Your task to perform on an android device: toggle airplane mode Image 0: 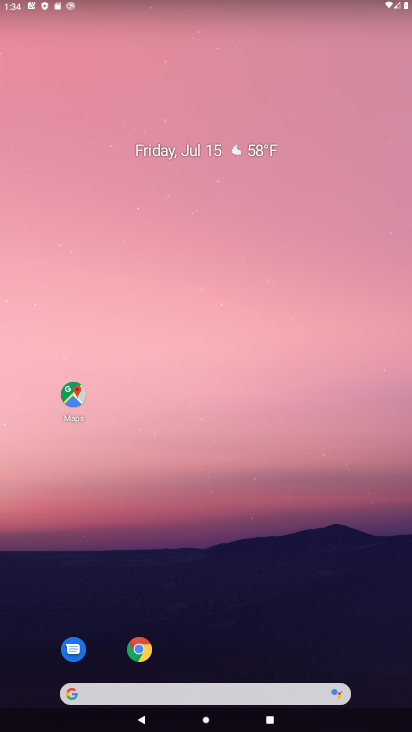
Step 0: drag from (252, 670) to (334, 0)
Your task to perform on an android device: toggle airplane mode Image 1: 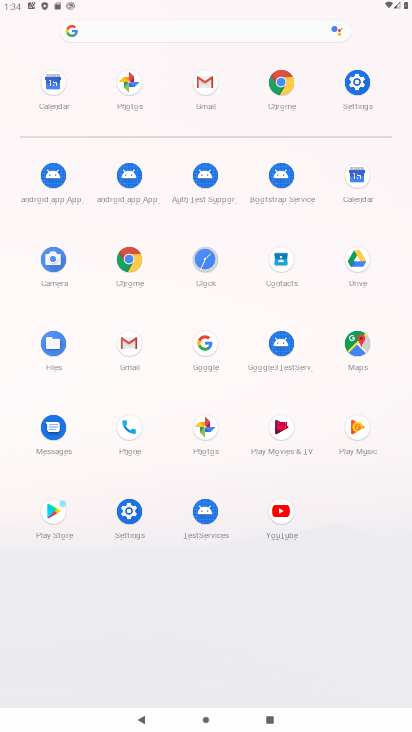
Step 1: click (370, 81)
Your task to perform on an android device: toggle airplane mode Image 2: 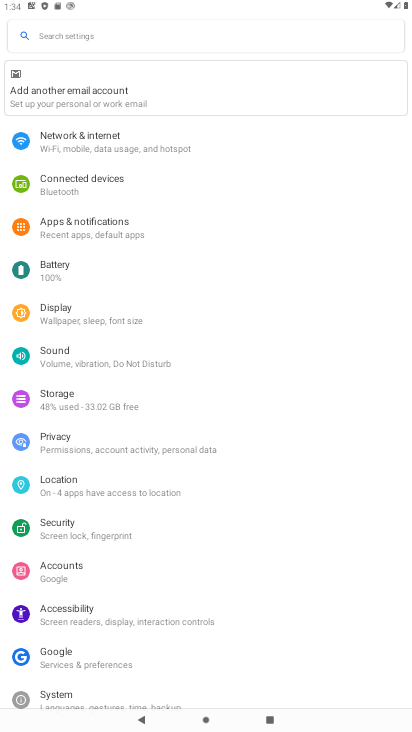
Step 2: click (100, 146)
Your task to perform on an android device: toggle airplane mode Image 3: 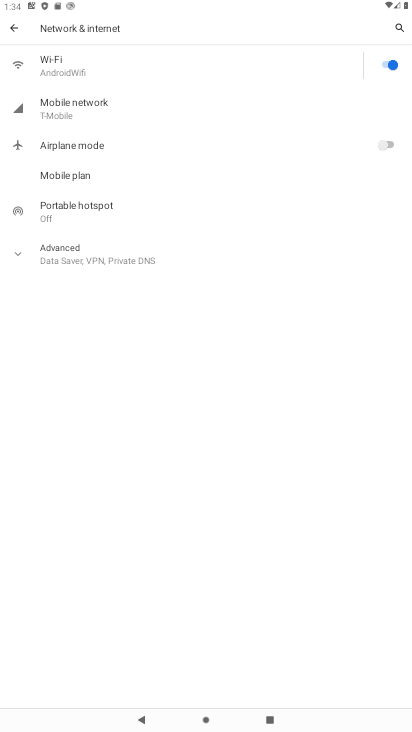
Step 3: click (393, 141)
Your task to perform on an android device: toggle airplane mode Image 4: 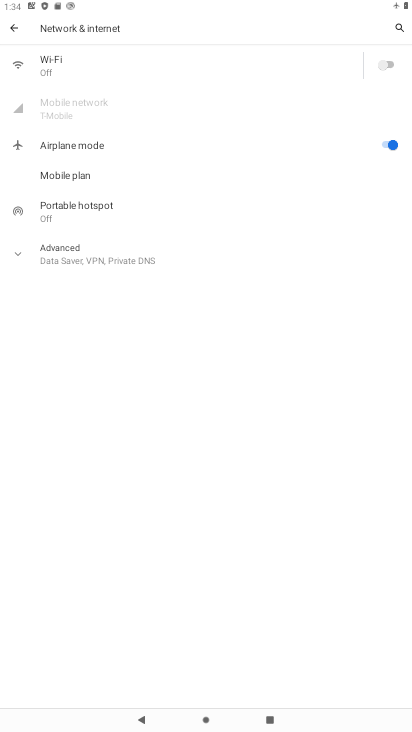
Step 4: task complete